Your task to perform on an android device: Open Android settings Image 0: 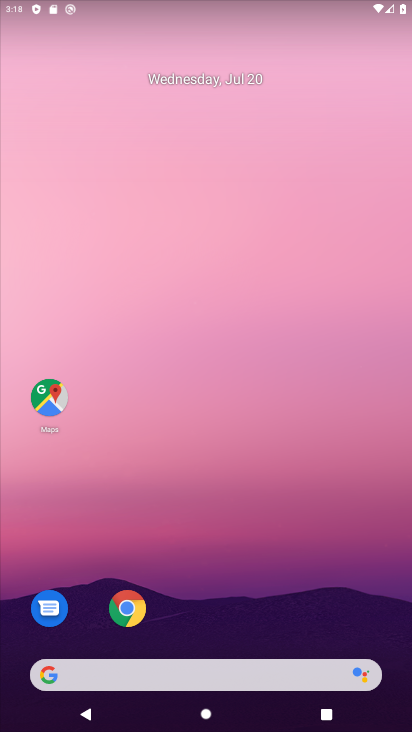
Step 0: drag from (222, 617) to (214, 310)
Your task to perform on an android device: Open Android settings Image 1: 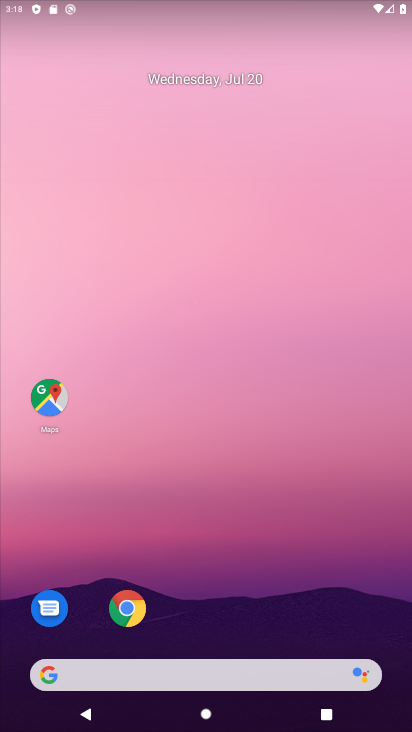
Step 1: drag from (243, 623) to (260, 0)
Your task to perform on an android device: Open Android settings Image 2: 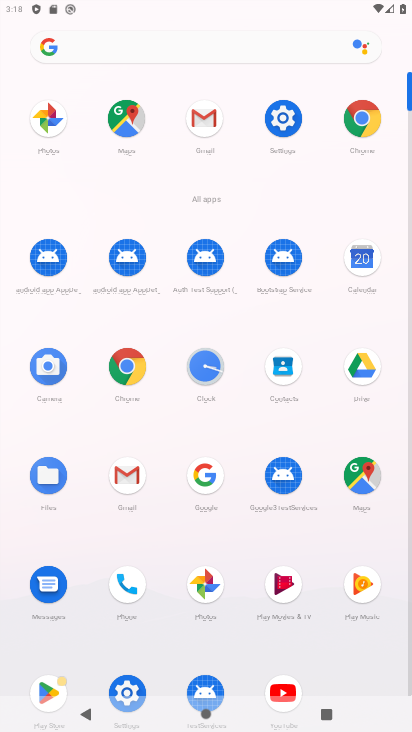
Step 2: click (276, 152)
Your task to perform on an android device: Open Android settings Image 3: 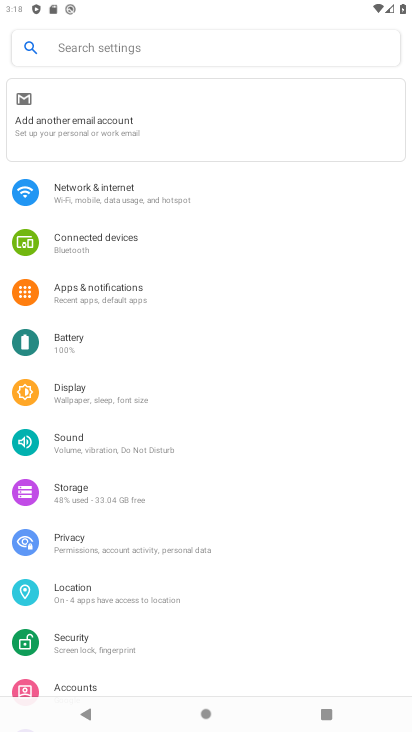
Step 3: task complete